Your task to perform on an android device: What's on my calendar tomorrow? Image 0: 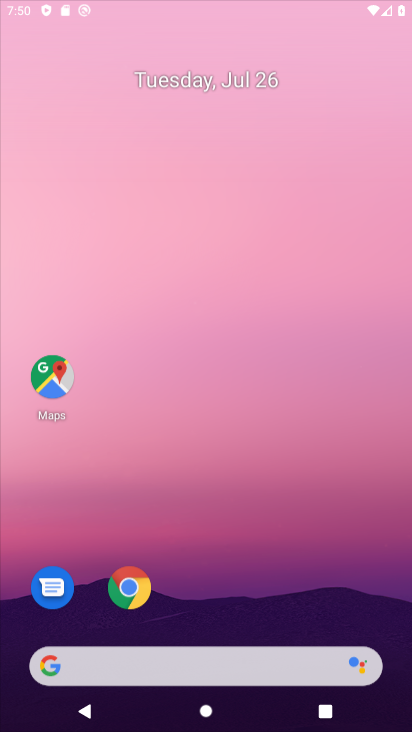
Step 0: click (314, 39)
Your task to perform on an android device: What's on my calendar tomorrow? Image 1: 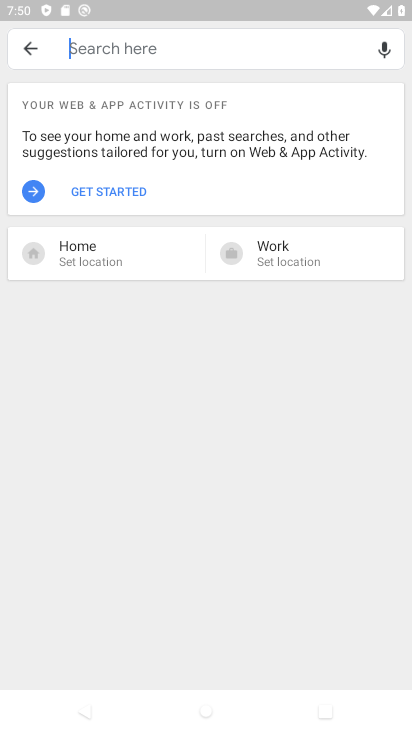
Step 1: press home button
Your task to perform on an android device: What's on my calendar tomorrow? Image 2: 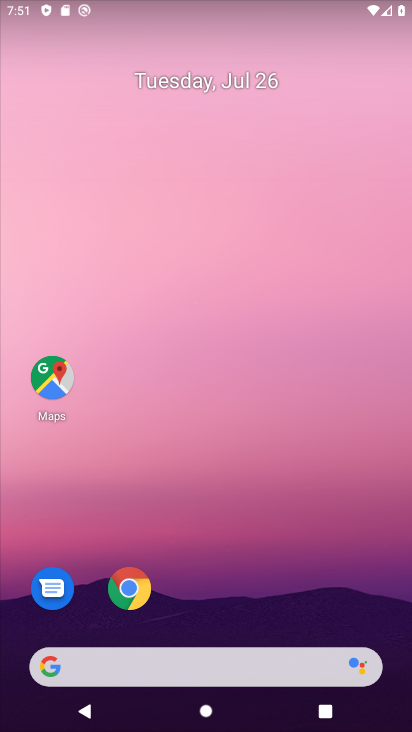
Step 2: drag from (204, 594) to (323, 34)
Your task to perform on an android device: What's on my calendar tomorrow? Image 3: 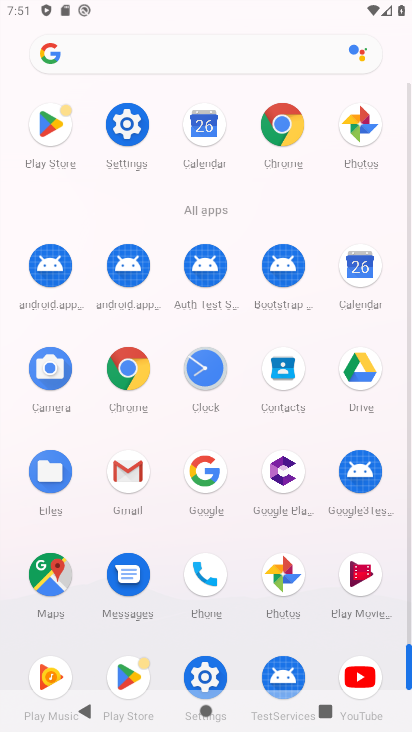
Step 3: click (204, 131)
Your task to perform on an android device: What's on my calendar tomorrow? Image 4: 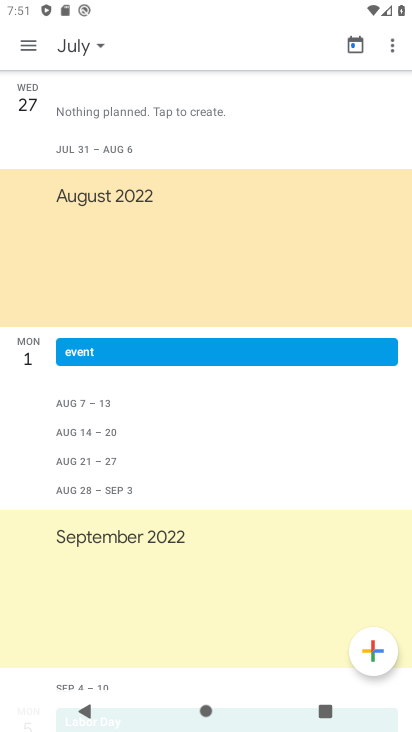
Step 4: task complete